Your task to perform on an android device: open a bookmark in the chrome app Image 0: 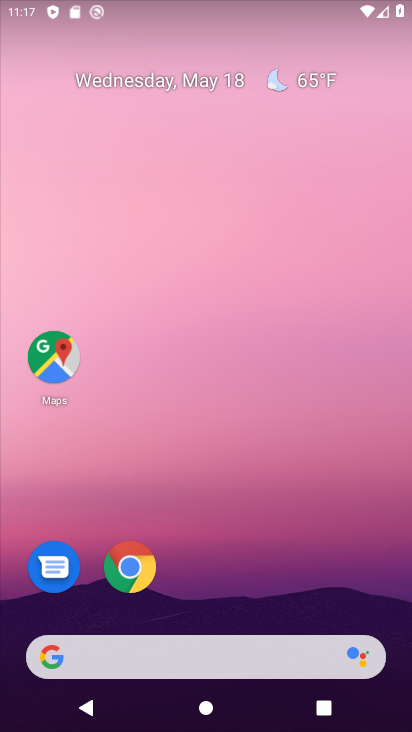
Step 0: drag from (296, 569) to (261, 123)
Your task to perform on an android device: open a bookmark in the chrome app Image 1: 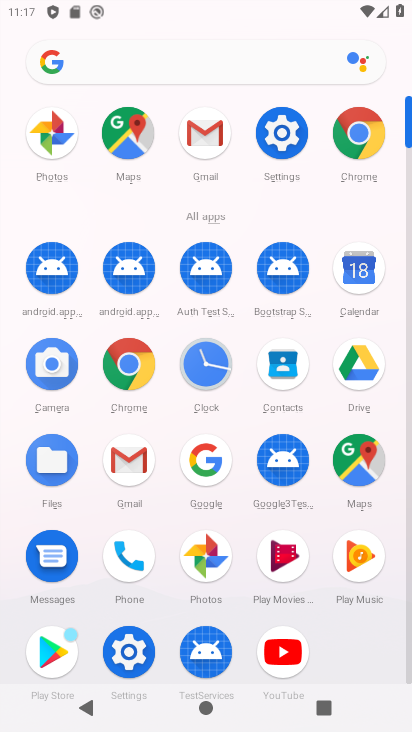
Step 1: click (126, 371)
Your task to perform on an android device: open a bookmark in the chrome app Image 2: 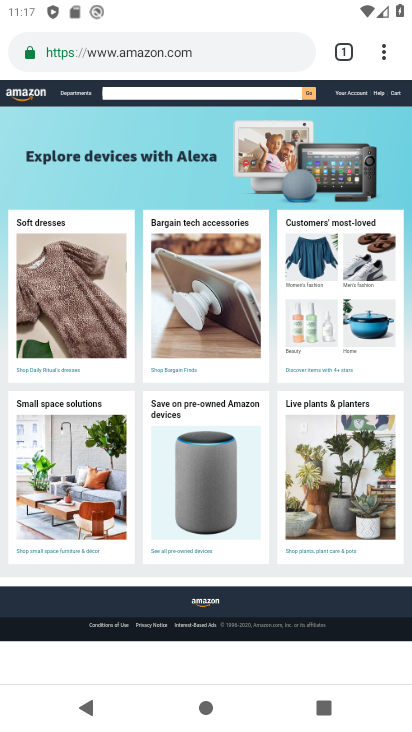
Step 2: click (391, 52)
Your task to perform on an android device: open a bookmark in the chrome app Image 3: 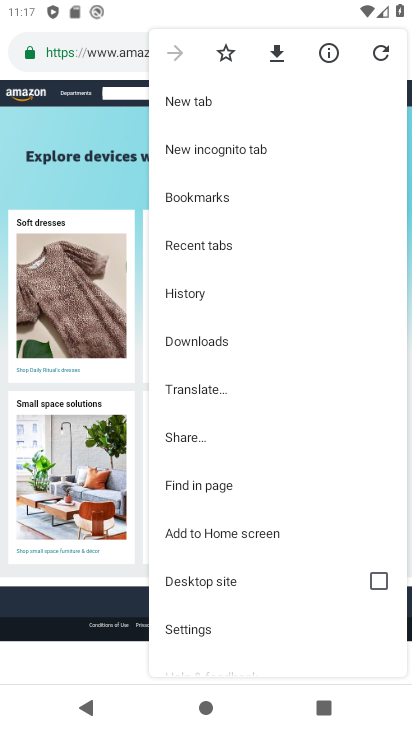
Step 3: click (192, 200)
Your task to perform on an android device: open a bookmark in the chrome app Image 4: 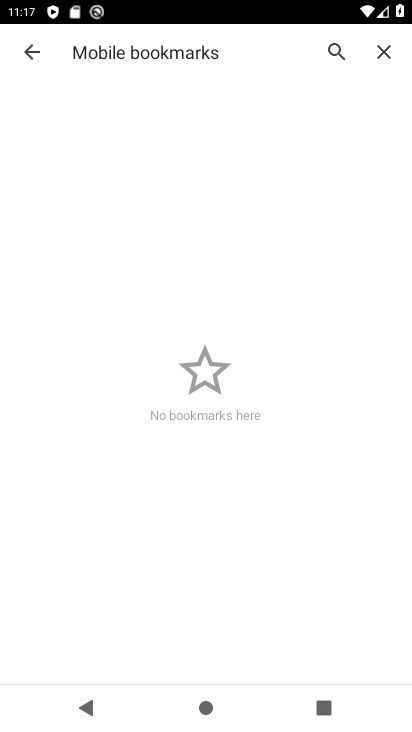
Step 4: task complete